Your task to perform on an android device: Open Android settings Image 0: 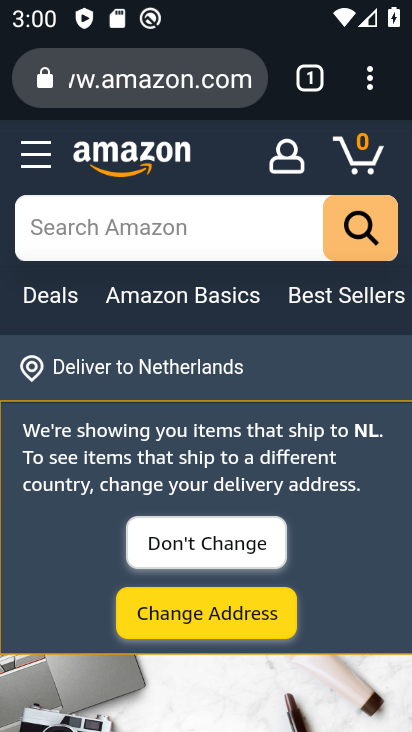
Step 0: press back button
Your task to perform on an android device: Open Android settings Image 1: 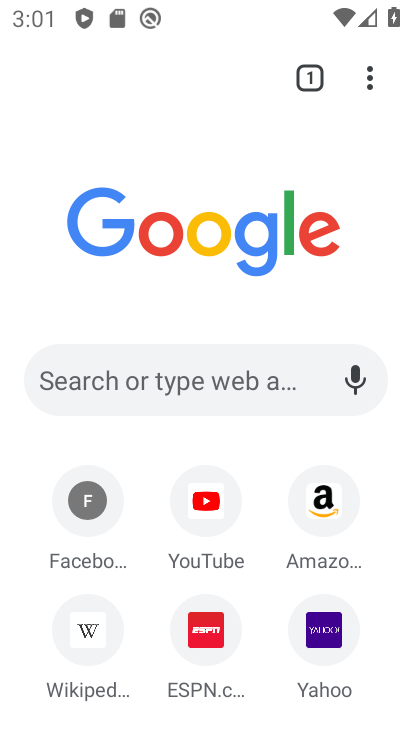
Step 1: press back button
Your task to perform on an android device: Open Android settings Image 2: 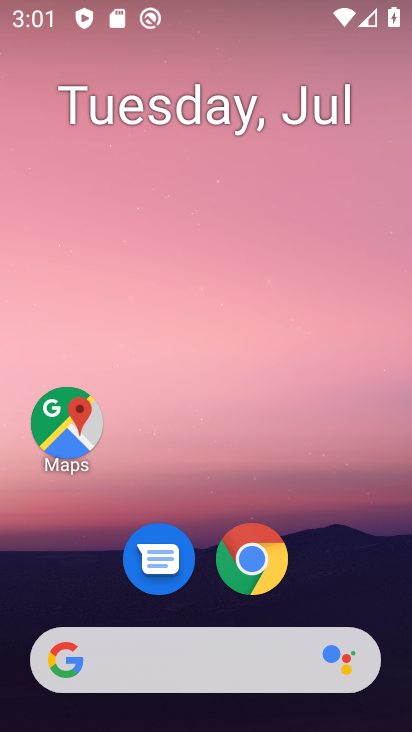
Step 2: drag from (168, 583) to (243, 10)
Your task to perform on an android device: Open Android settings Image 3: 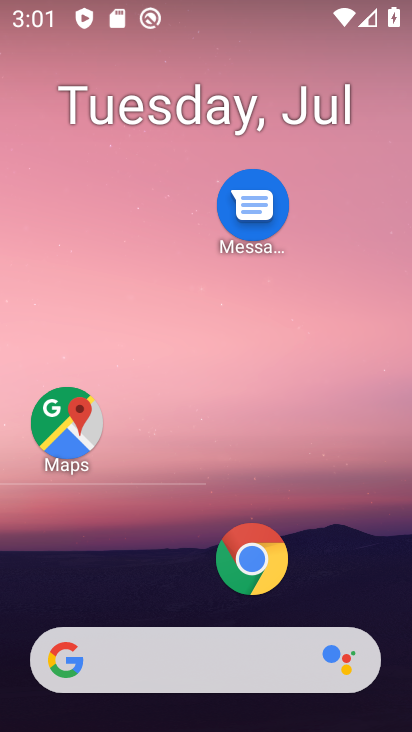
Step 3: drag from (187, 504) to (192, 47)
Your task to perform on an android device: Open Android settings Image 4: 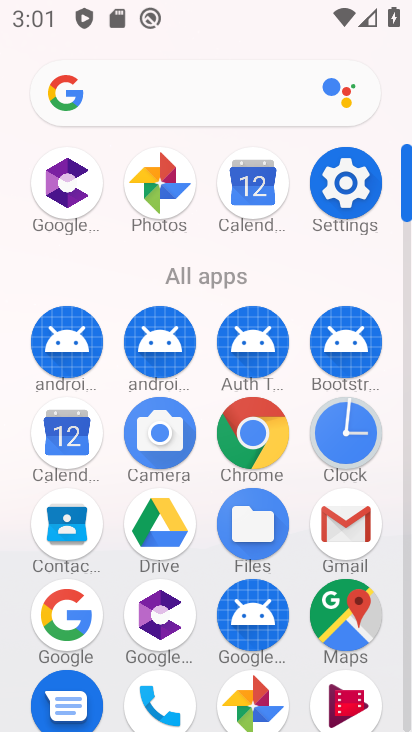
Step 4: click (317, 176)
Your task to perform on an android device: Open Android settings Image 5: 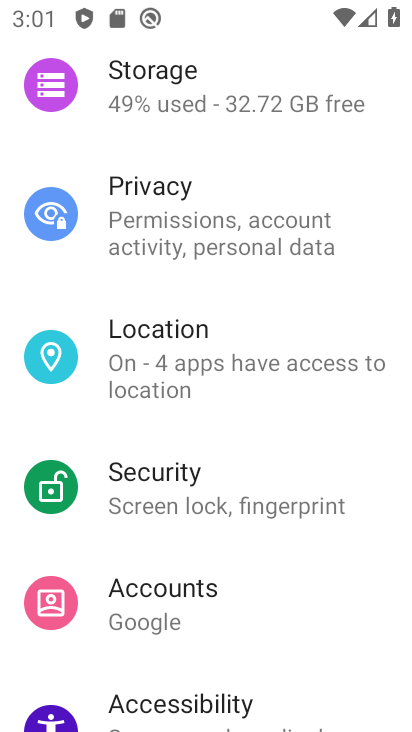
Step 5: drag from (181, 672) to (261, 27)
Your task to perform on an android device: Open Android settings Image 6: 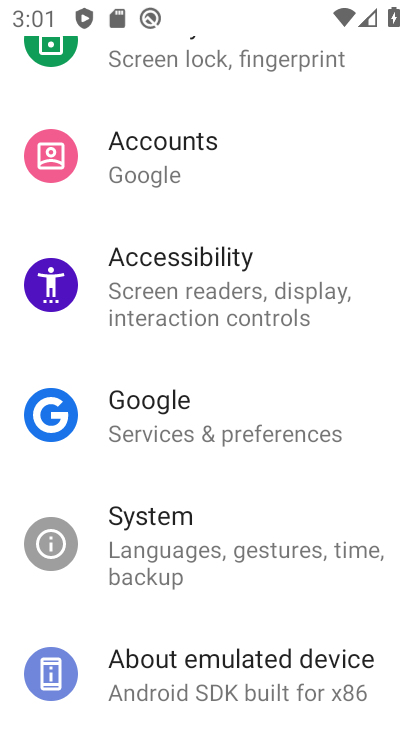
Step 6: drag from (221, 660) to (310, 6)
Your task to perform on an android device: Open Android settings Image 7: 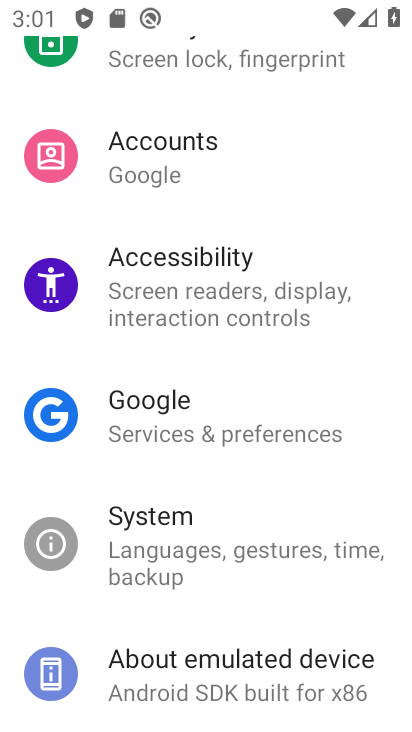
Step 7: click (203, 682)
Your task to perform on an android device: Open Android settings Image 8: 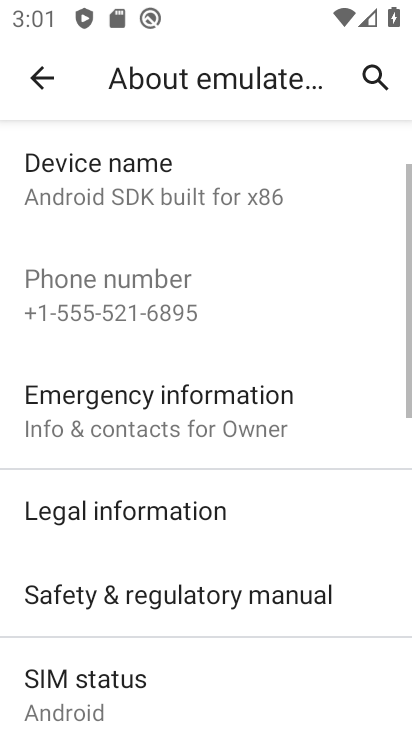
Step 8: drag from (178, 632) to (268, 31)
Your task to perform on an android device: Open Android settings Image 9: 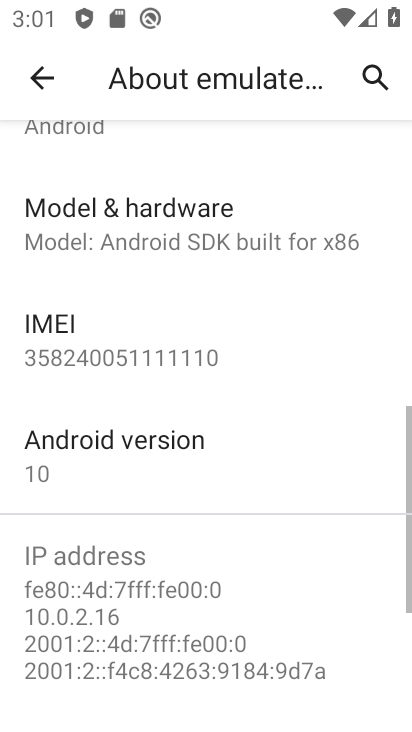
Step 9: drag from (235, 297) to (229, 606)
Your task to perform on an android device: Open Android settings Image 10: 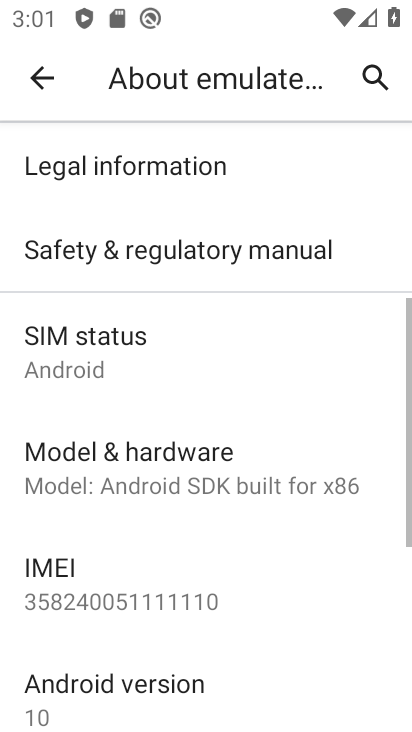
Step 10: click (123, 689)
Your task to perform on an android device: Open Android settings Image 11: 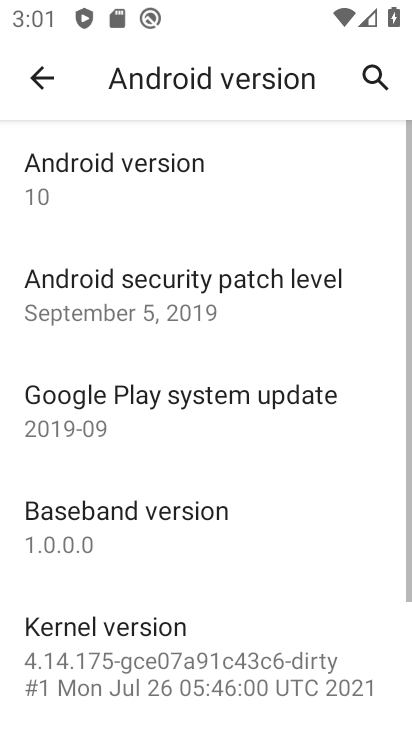
Step 11: task complete